Your task to perform on an android device: What's the news in Indonesia? Image 0: 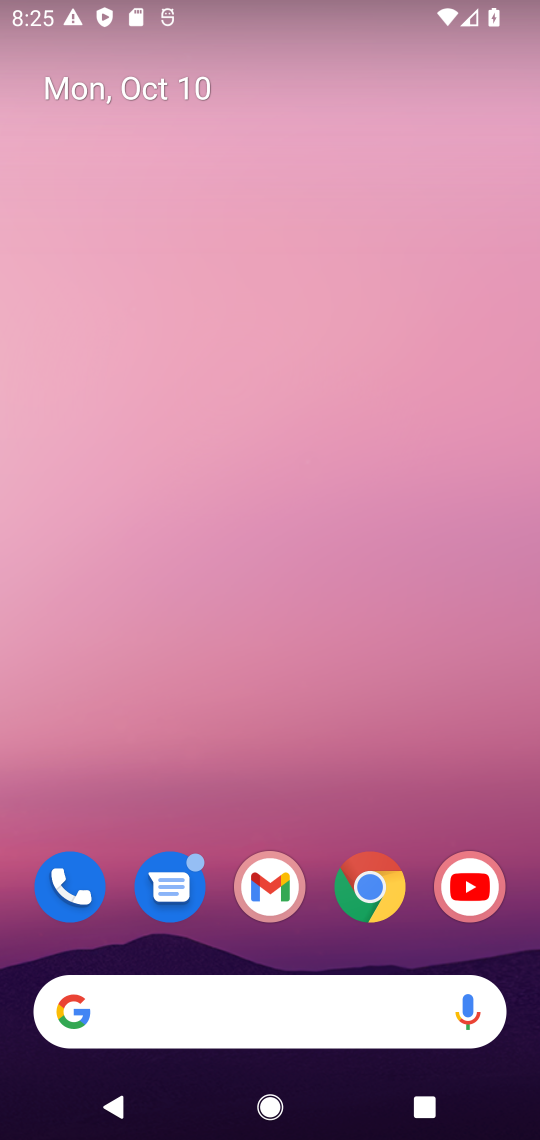
Step 0: click (362, 893)
Your task to perform on an android device: What's the news in Indonesia? Image 1: 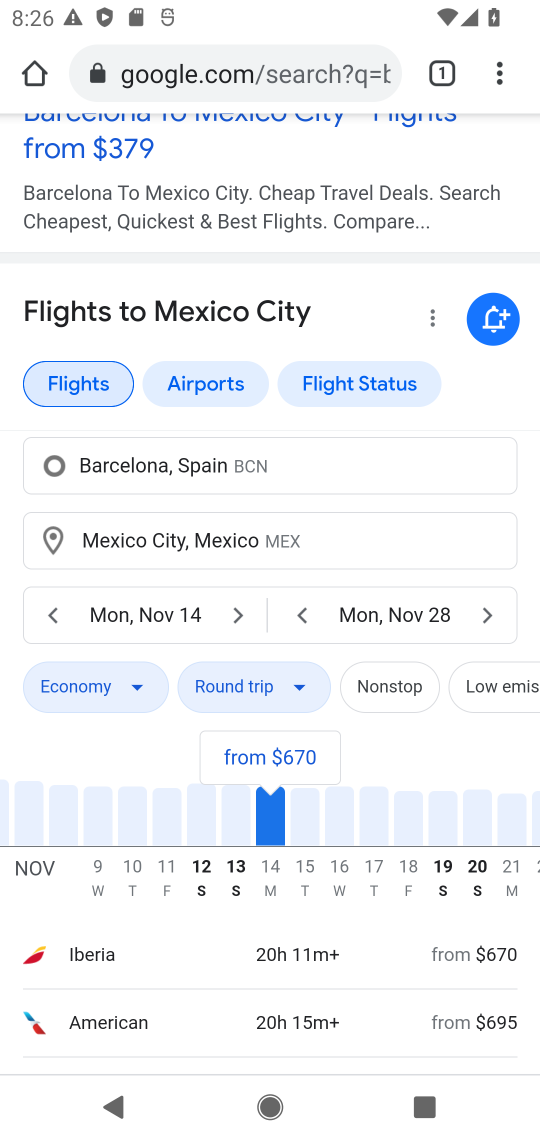
Step 1: drag from (354, 312) to (364, 789)
Your task to perform on an android device: What's the news in Indonesia? Image 2: 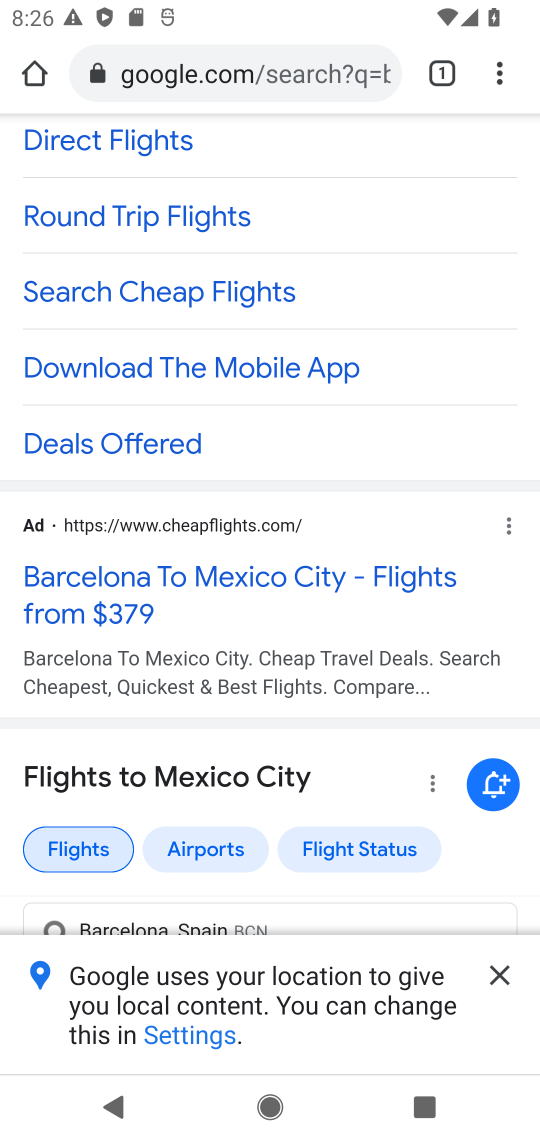
Step 2: click (278, 91)
Your task to perform on an android device: What's the news in Indonesia? Image 3: 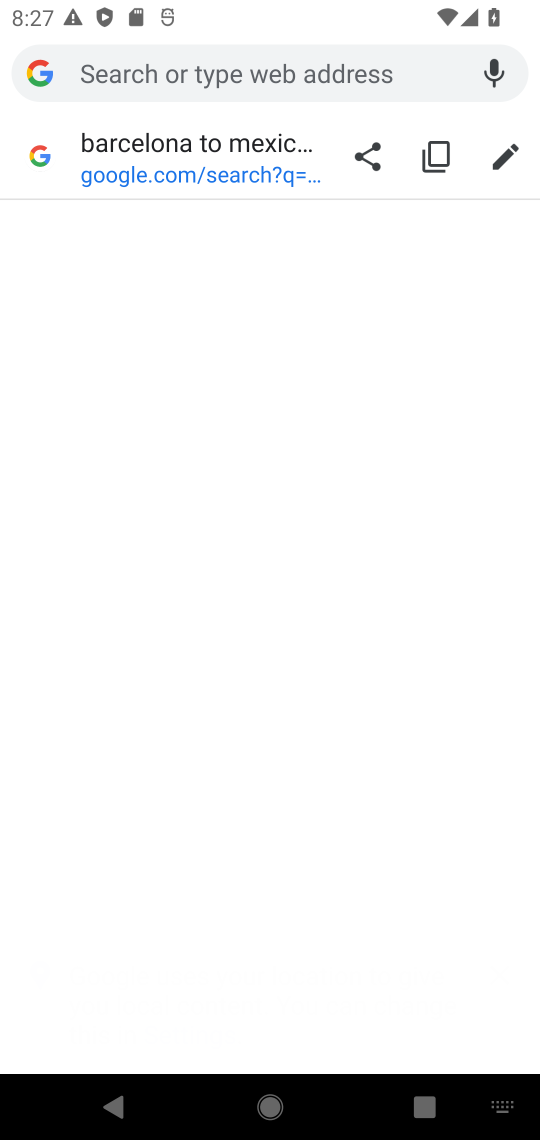
Step 3: type "indonesia"
Your task to perform on an android device: What's the news in Indonesia? Image 4: 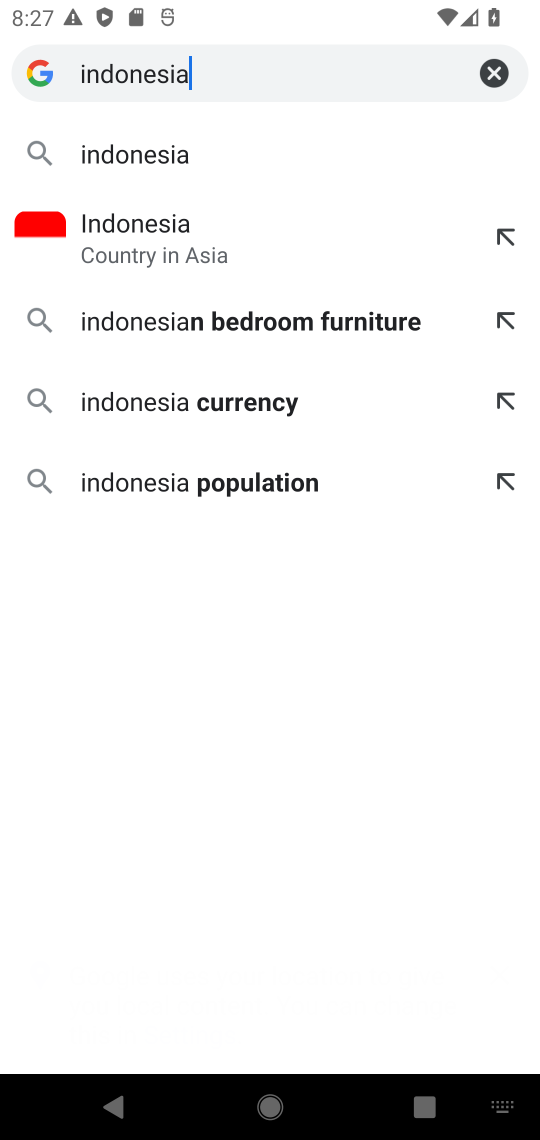
Step 4: click (157, 151)
Your task to perform on an android device: What's the news in Indonesia? Image 5: 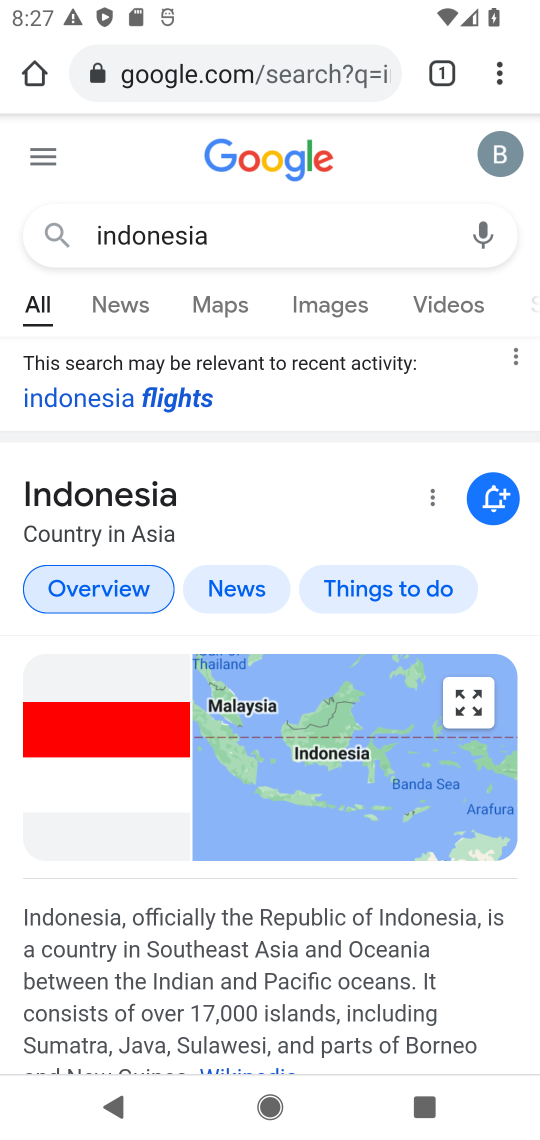
Step 5: click (128, 307)
Your task to perform on an android device: What's the news in Indonesia? Image 6: 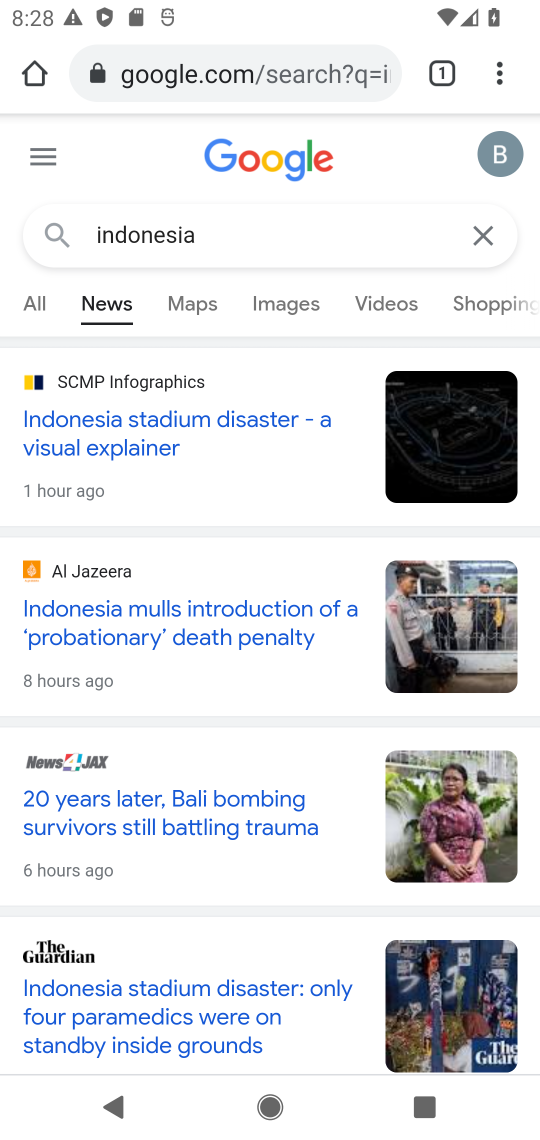
Step 6: task complete